Your task to perform on an android device: Go to ESPN.com Image 0: 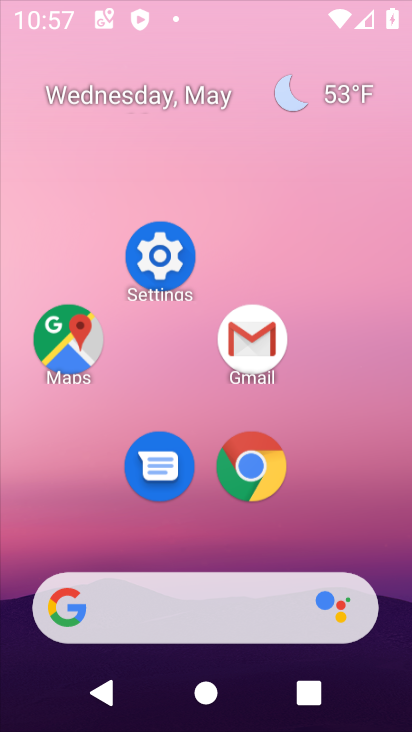
Step 0: drag from (177, 592) to (297, 236)
Your task to perform on an android device: Go to ESPN.com Image 1: 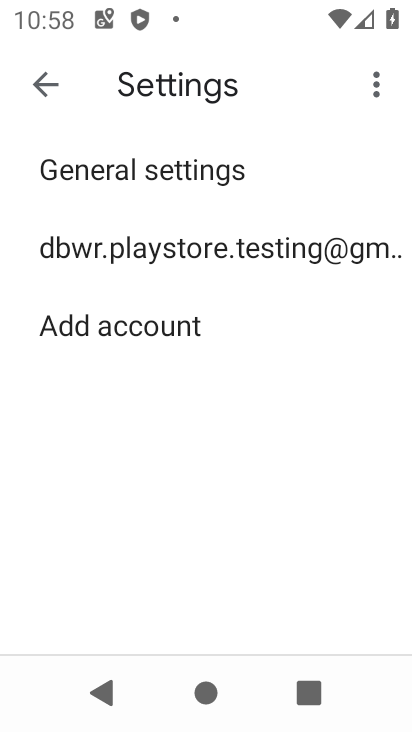
Step 1: press home button
Your task to perform on an android device: Go to ESPN.com Image 2: 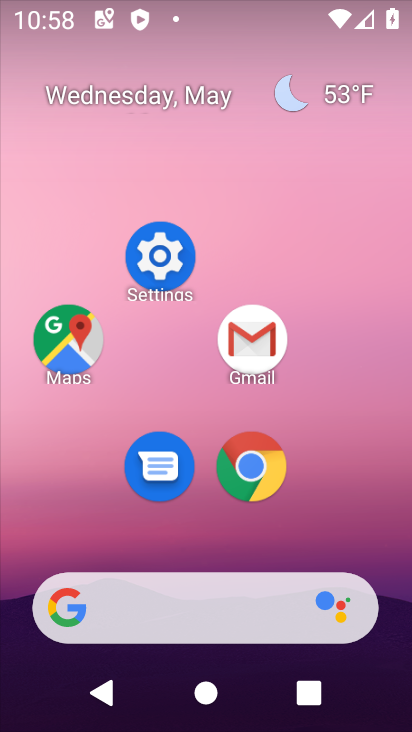
Step 2: drag from (233, 381) to (302, 34)
Your task to perform on an android device: Go to ESPN.com Image 3: 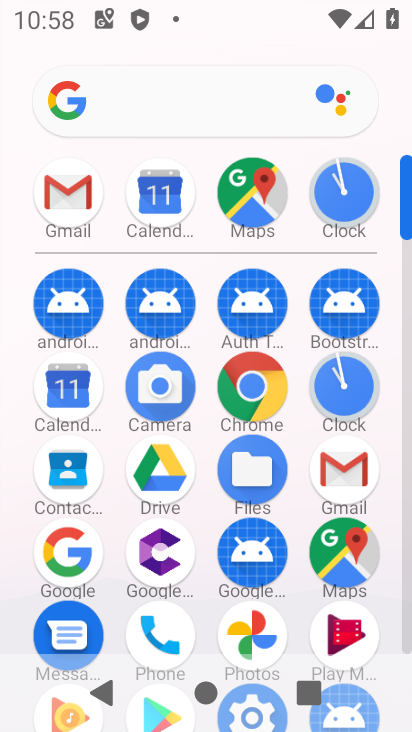
Step 3: click (203, 94)
Your task to perform on an android device: Go to ESPN.com Image 4: 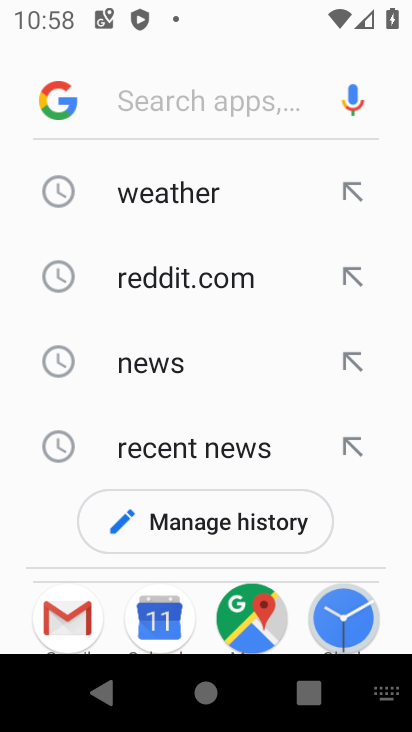
Step 4: type "espn.com"
Your task to perform on an android device: Go to ESPN.com Image 5: 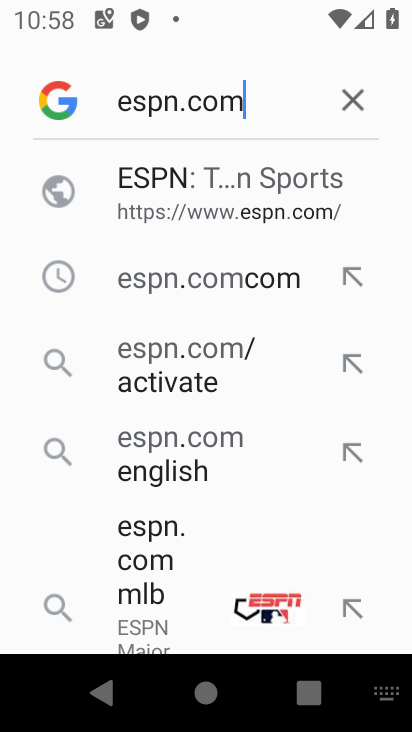
Step 5: click (174, 199)
Your task to perform on an android device: Go to ESPN.com Image 6: 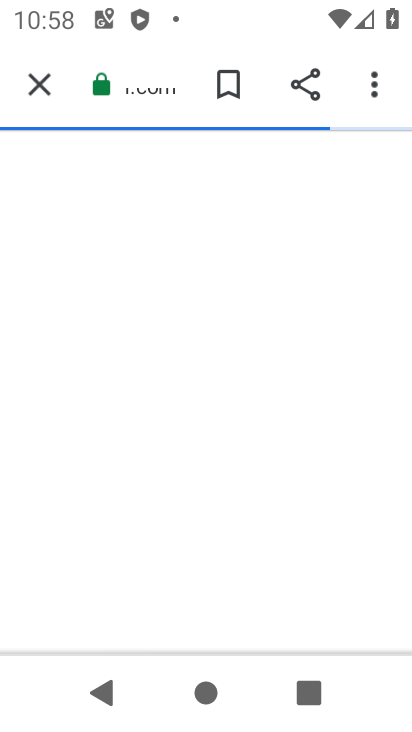
Step 6: task complete